Your task to perform on an android device: Open Android settings Image 0: 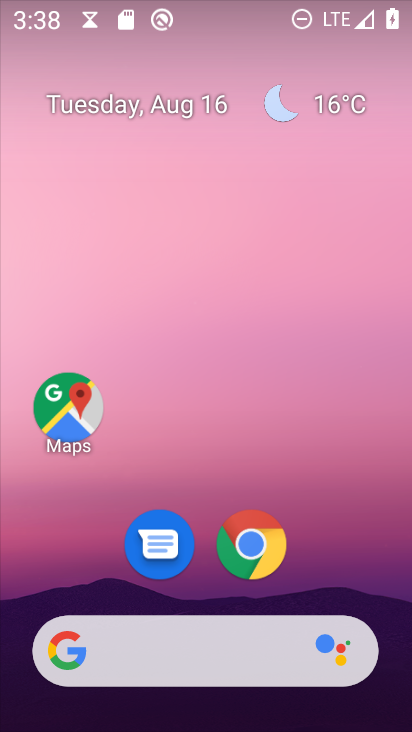
Step 0: drag from (218, 672) to (274, 5)
Your task to perform on an android device: Open Android settings Image 1: 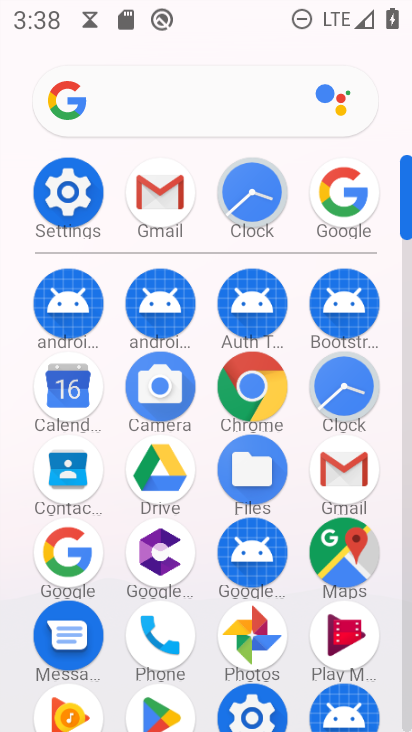
Step 1: click (66, 191)
Your task to perform on an android device: Open Android settings Image 2: 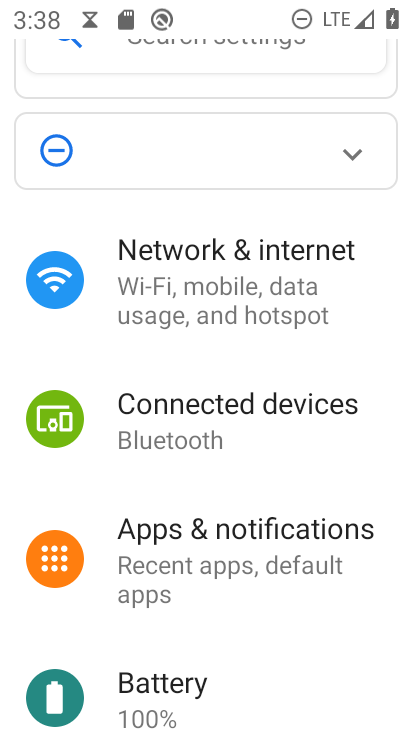
Step 2: task complete